Your task to perform on an android device: move an email to a new category in the gmail app Image 0: 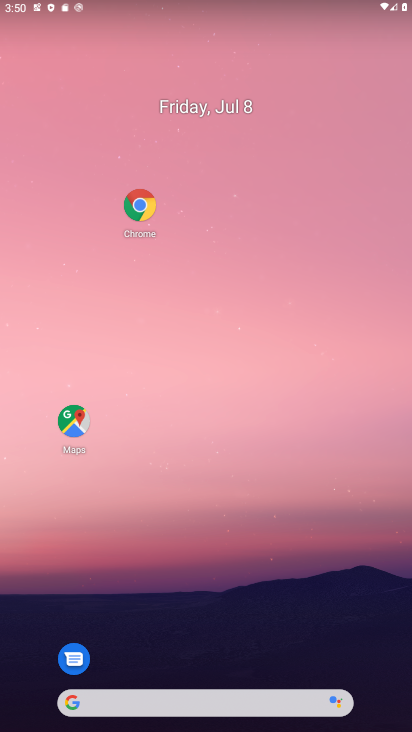
Step 0: drag from (174, 635) to (207, 209)
Your task to perform on an android device: move an email to a new category in the gmail app Image 1: 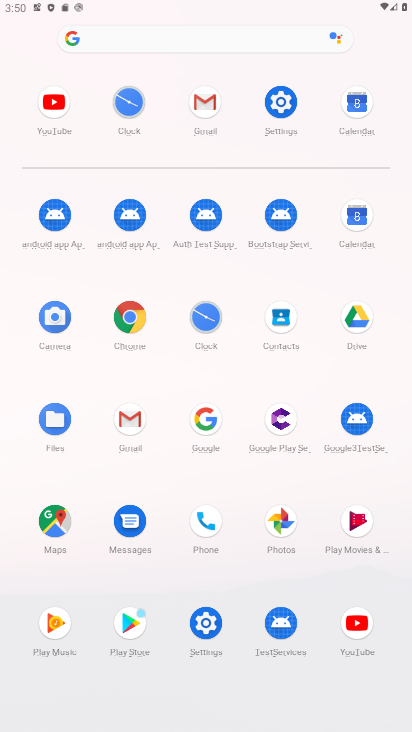
Step 1: click (201, 94)
Your task to perform on an android device: move an email to a new category in the gmail app Image 2: 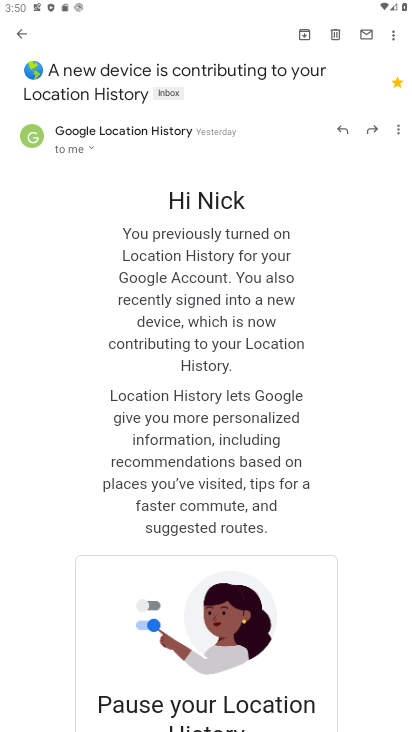
Step 2: click (385, 38)
Your task to perform on an android device: move an email to a new category in the gmail app Image 3: 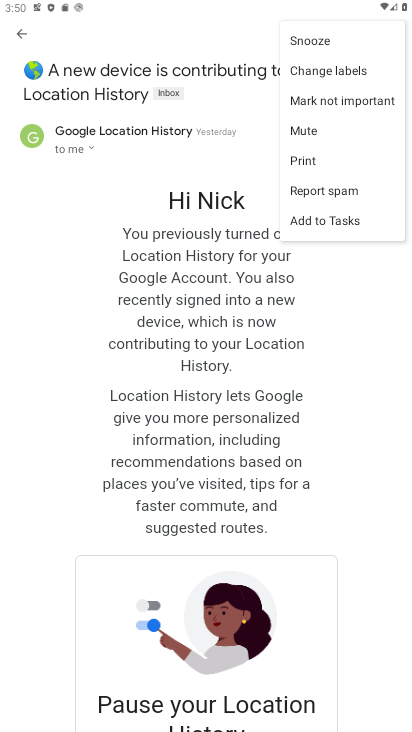
Step 3: click (322, 75)
Your task to perform on an android device: move an email to a new category in the gmail app Image 4: 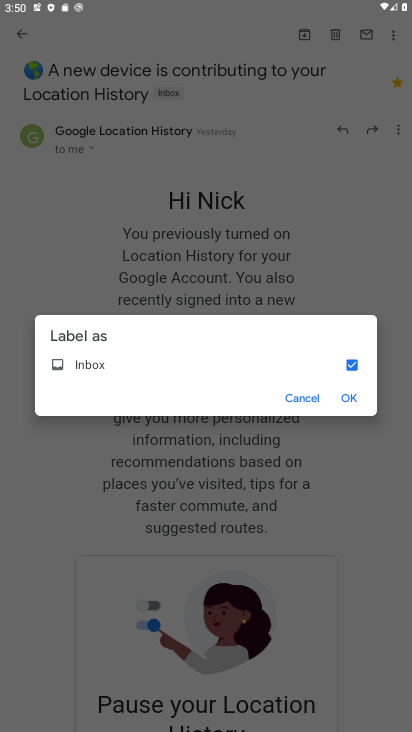
Step 4: click (341, 393)
Your task to perform on an android device: move an email to a new category in the gmail app Image 5: 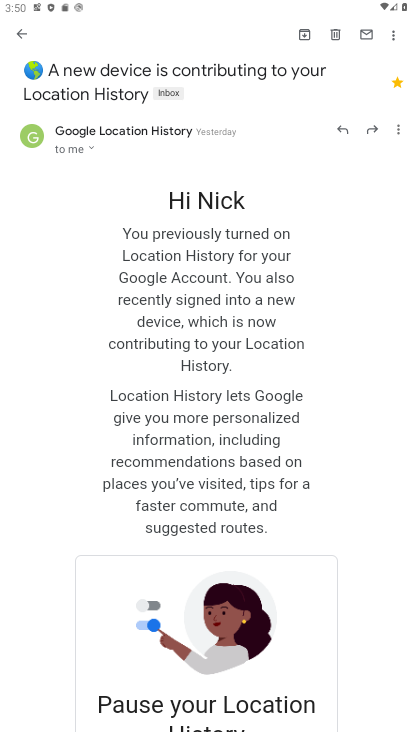
Step 5: task complete